Your task to perform on an android device: Open calendar and show me the first week of next month Image 0: 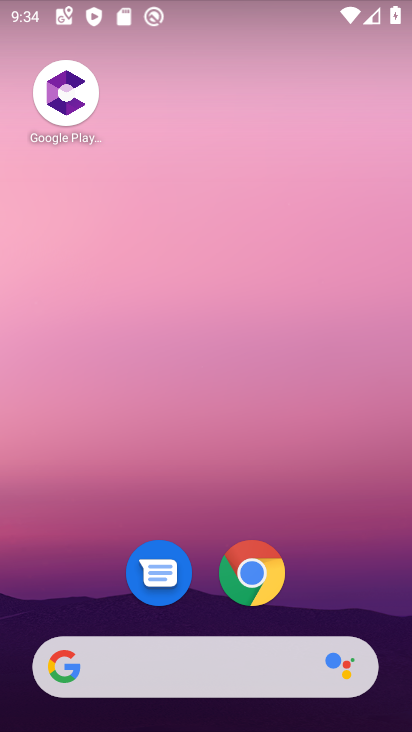
Step 0: drag from (359, 599) to (231, 61)
Your task to perform on an android device: Open calendar and show me the first week of next month Image 1: 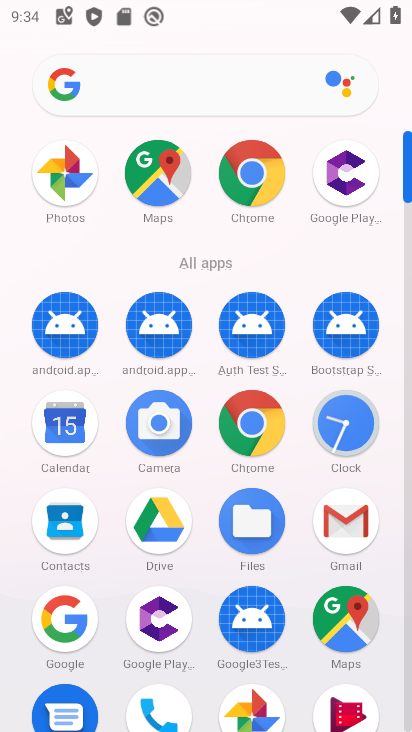
Step 1: click (70, 431)
Your task to perform on an android device: Open calendar and show me the first week of next month Image 2: 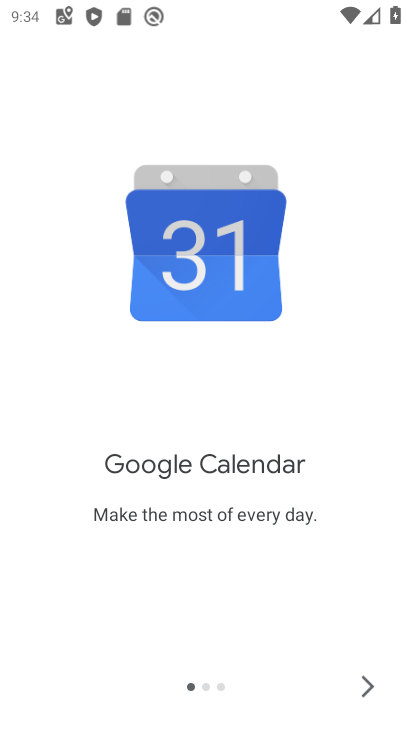
Step 2: click (350, 680)
Your task to perform on an android device: Open calendar and show me the first week of next month Image 3: 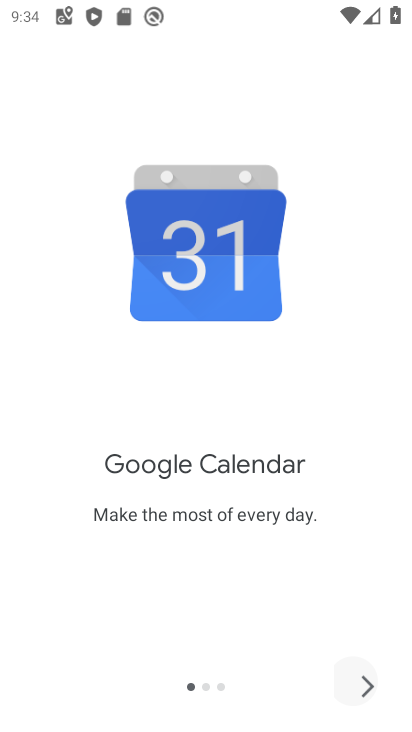
Step 3: click (350, 680)
Your task to perform on an android device: Open calendar and show me the first week of next month Image 4: 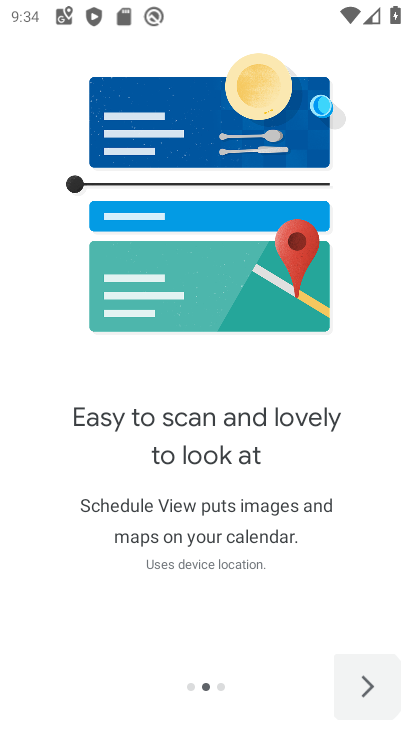
Step 4: click (350, 680)
Your task to perform on an android device: Open calendar and show me the first week of next month Image 5: 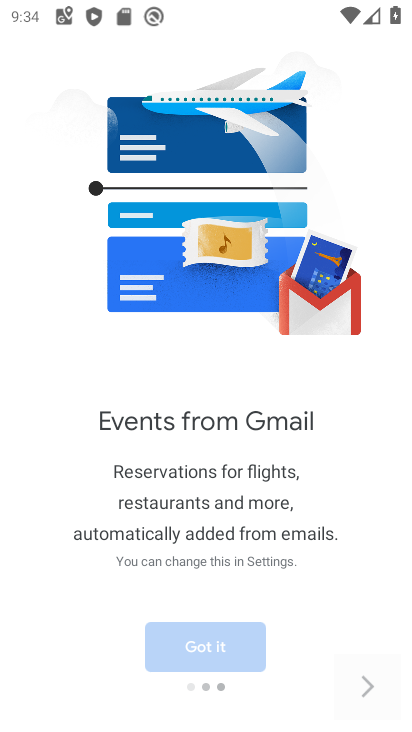
Step 5: click (350, 680)
Your task to perform on an android device: Open calendar and show me the first week of next month Image 6: 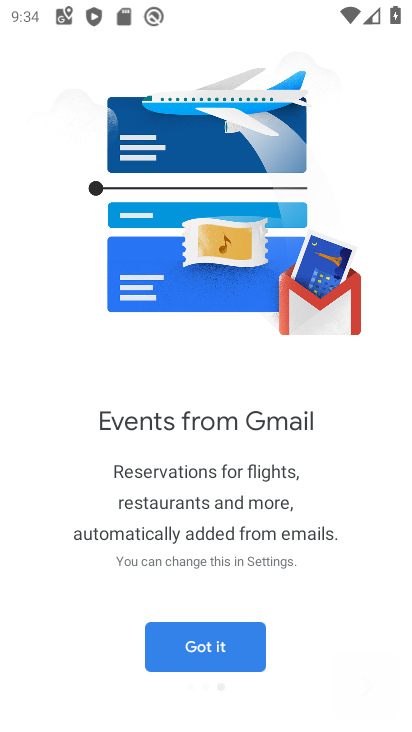
Step 6: click (350, 680)
Your task to perform on an android device: Open calendar and show me the first week of next month Image 7: 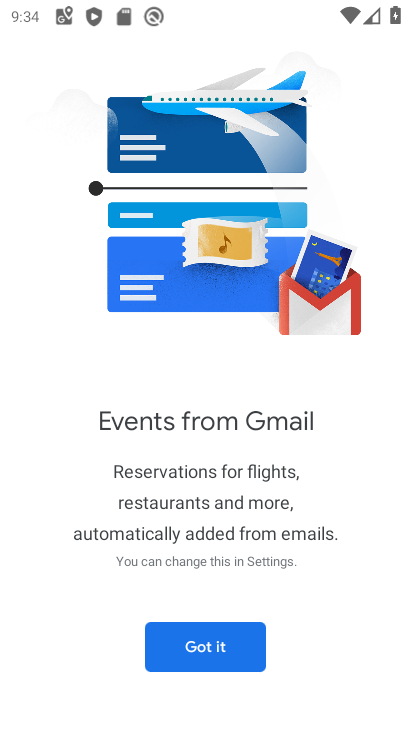
Step 7: click (350, 680)
Your task to perform on an android device: Open calendar and show me the first week of next month Image 8: 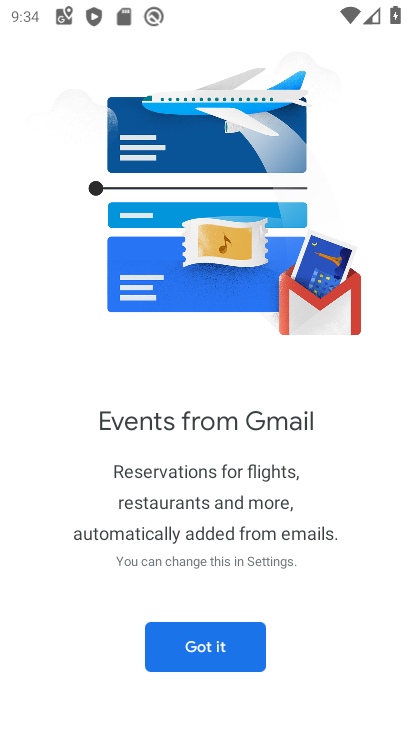
Step 8: click (350, 680)
Your task to perform on an android device: Open calendar and show me the first week of next month Image 9: 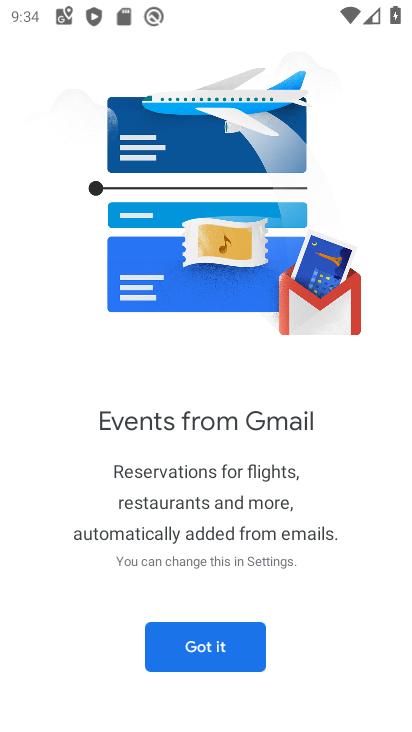
Step 9: click (240, 645)
Your task to perform on an android device: Open calendar and show me the first week of next month Image 10: 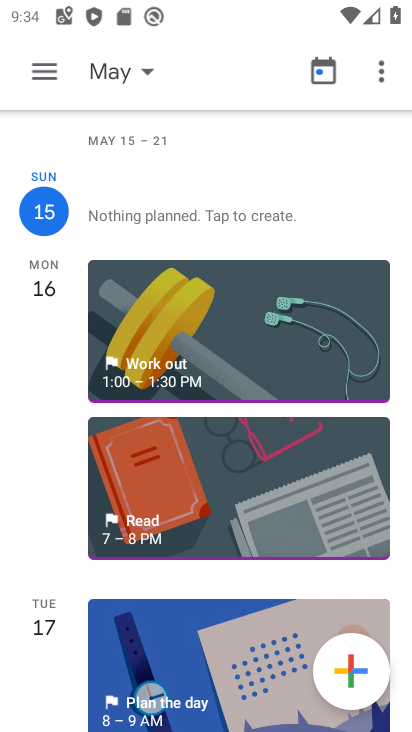
Step 10: click (155, 82)
Your task to perform on an android device: Open calendar and show me the first week of next month Image 11: 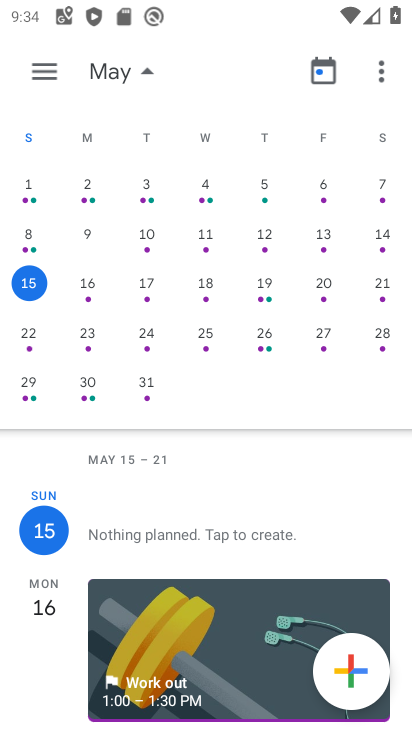
Step 11: task complete